Your task to perform on an android device: turn on showing notifications on the lock screen Image 0: 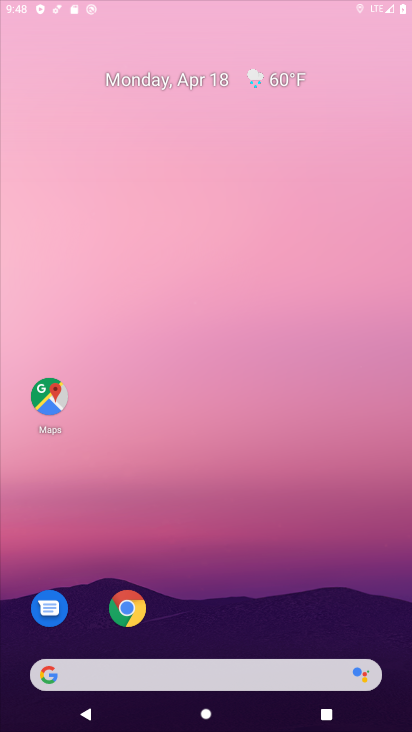
Step 0: drag from (193, 633) to (309, 131)
Your task to perform on an android device: turn on showing notifications on the lock screen Image 1: 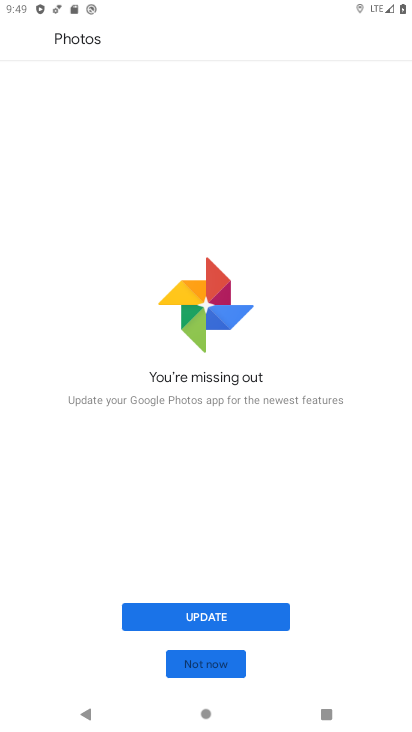
Step 1: press home button
Your task to perform on an android device: turn on showing notifications on the lock screen Image 2: 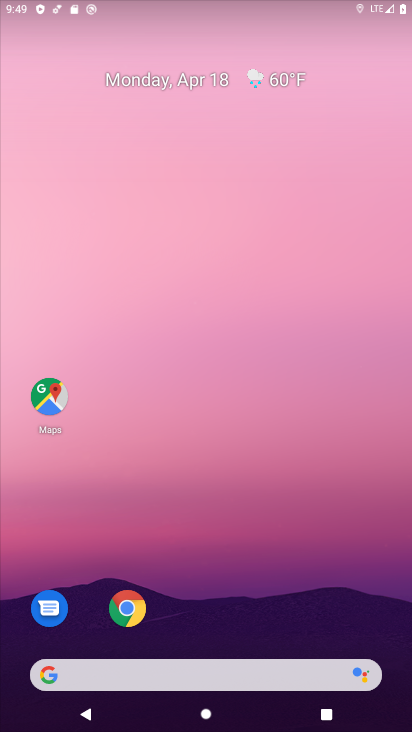
Step 2: drag from (190, 462) to (230, 49)
Your task to perform on an android device: turn on showing notifications on the lock screen Image 3: 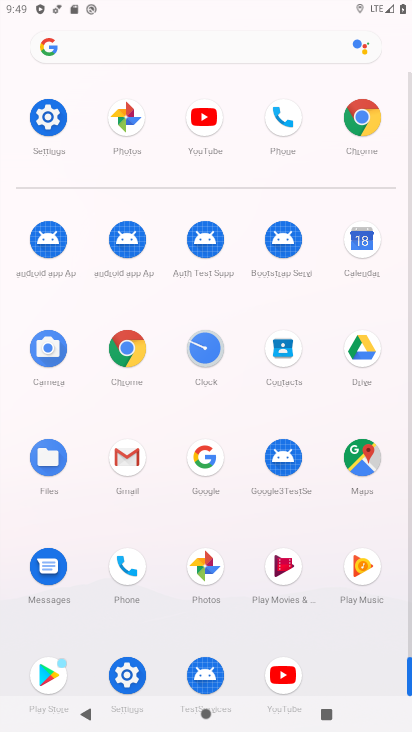
Step 3: click (121, 670)
Your task to perform on an android device: turn on showing notifications on the lock screen Image 4: 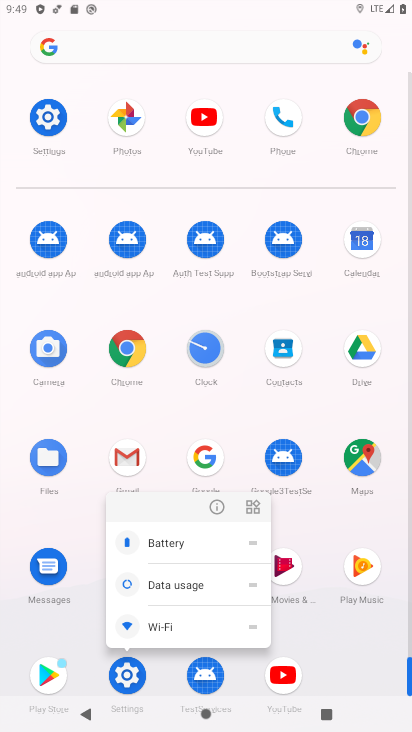
Step 4: click (215, 508)
Your task to perform on an android device: turn on showing notifications on the lock screen Image 5: 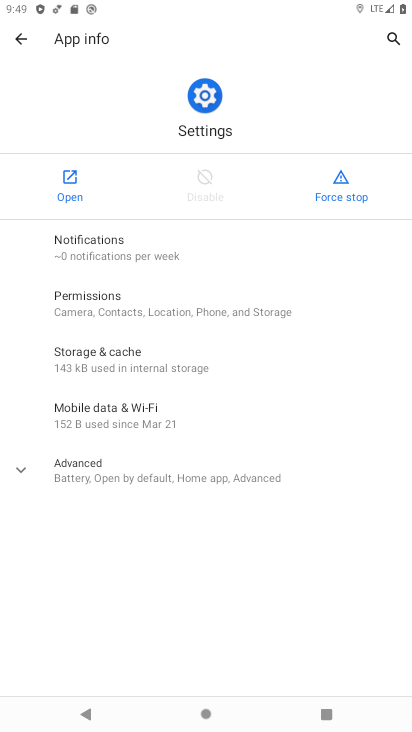
Step 5: click (43, 188)
Your task to perform on an android device: turn on showing notifications on the lock screen Image 6: 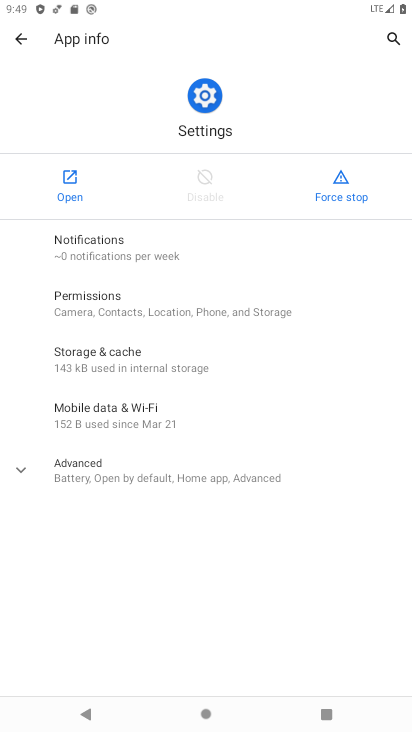
Step 6: click (62, 187)
Your task to perform on an android device: turn on showing notifications on the lock screen Image 7: 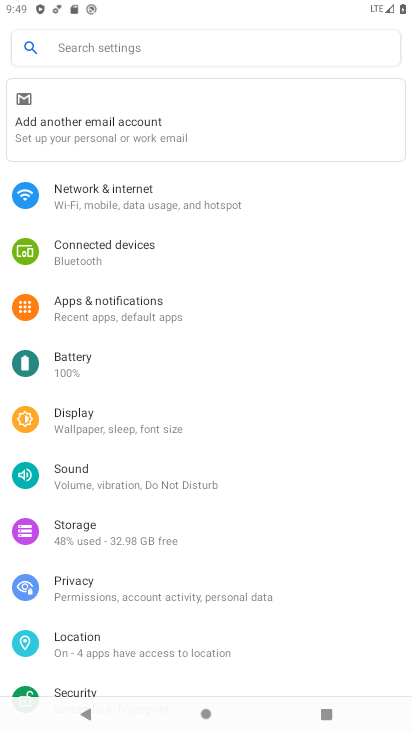
Step 7: drag from (193, 577) to (256, 126)
Your task to perform on an android device: turn on showing notifications on the lock screen Image 8: 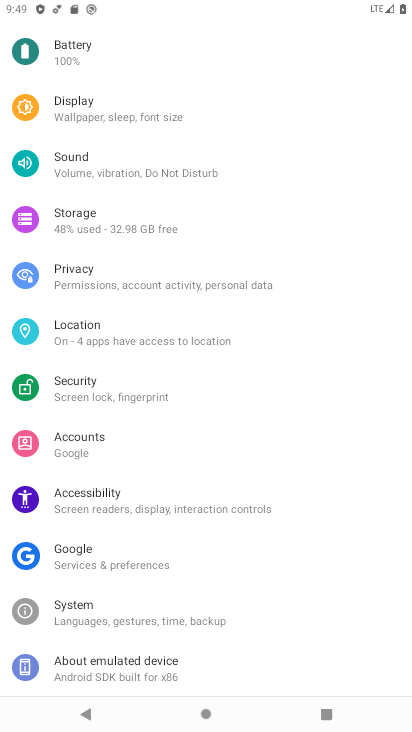
Step 8: drag from (195, 195) to (278, 651)
Your task to perform on an android device: turn on showing notifications on the lock screen Image 9: 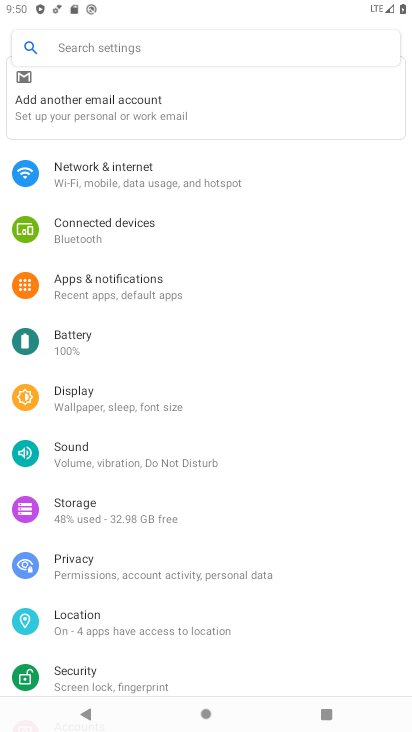
Step 9: click (181, 295)
Your task to perform on an android device: turn on showing notifications on the lock screen Image 10: 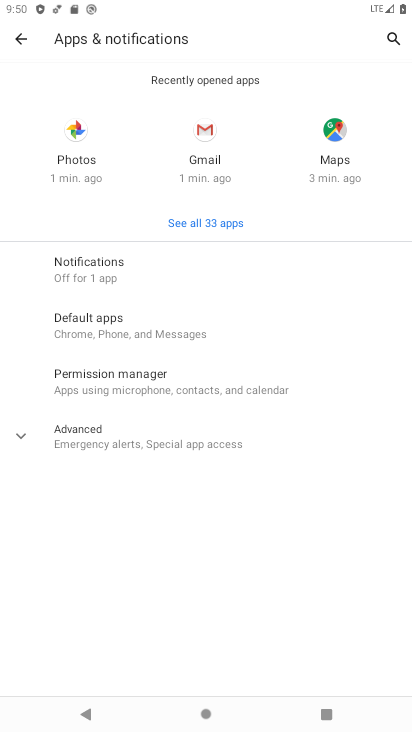
Step 10: click (178, 265)
Your task to perform on an android device: turn on showing notifications on the lock screen Image 11: 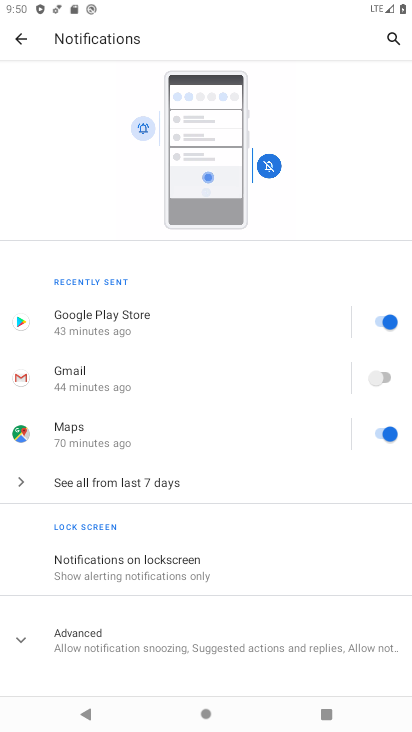
Step 11: drag from (256, 551) to (278, 372)
Your task to perform on an android device: turn on showing notifications on the lock screen Image 12: 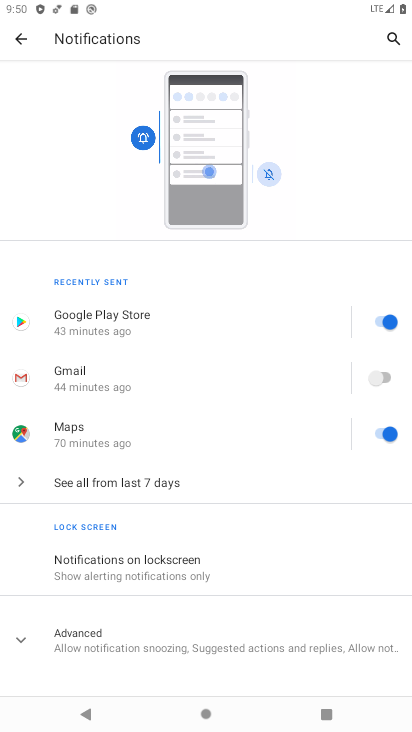
Step 12: click (202, 561)
Your task to perform on an android device: turn on showing notifications on the lock screen Image 13: 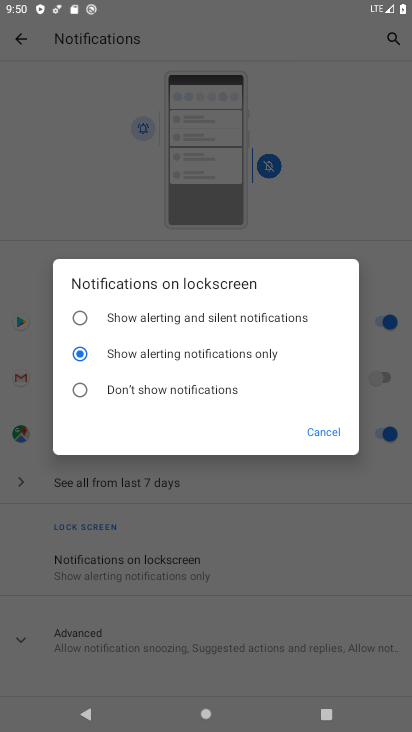
Step 13: task complete